Your task to perform on an android device: Open Wikipedia Image 0: 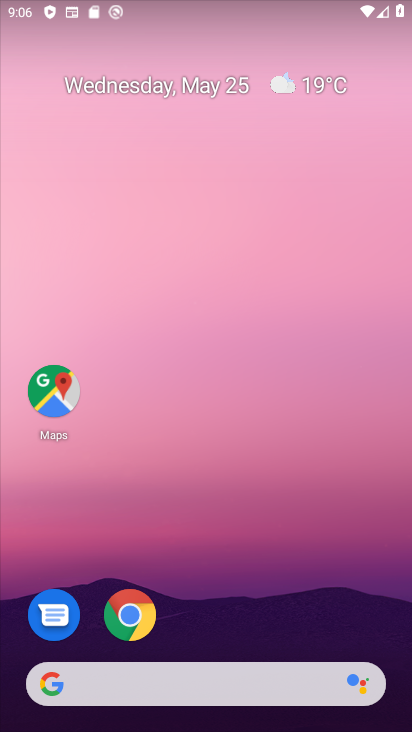
Step 0: drag from (270, 701) to (204, 124)
Your task to perform on an android device: Open Wikipedia Image 1: 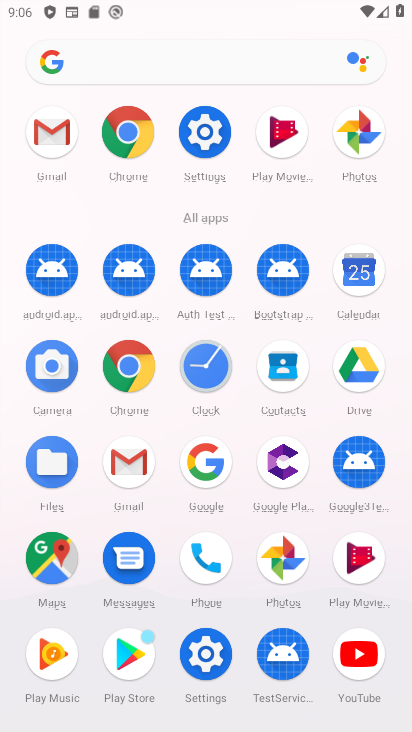
Step 1: click (122, 146)
Your task to perform on an android device: Open Wikipedia Image 2: 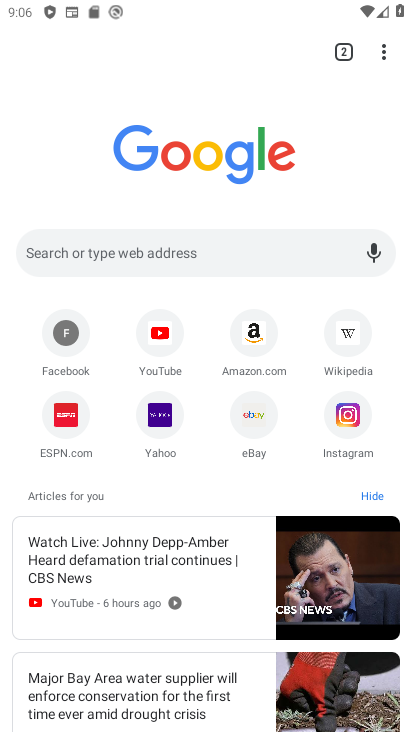
Step 2: click (338, 348)
Your task to perform on an android device: Open Wikipedia Image 3: 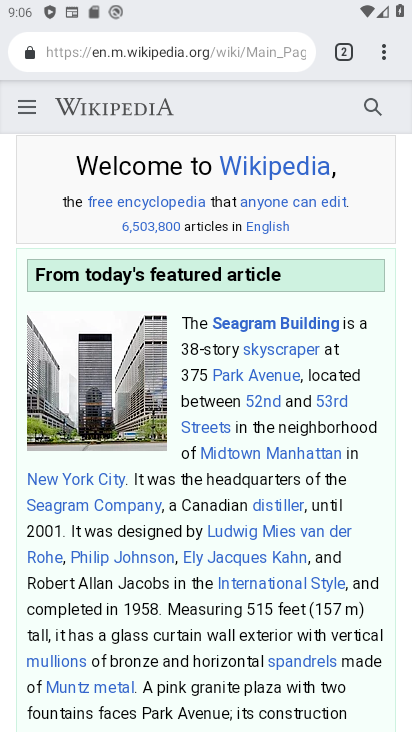
Step 3: task complete